Your task to perform on an android device: What's on the menu at Olive Garden? Image 0: 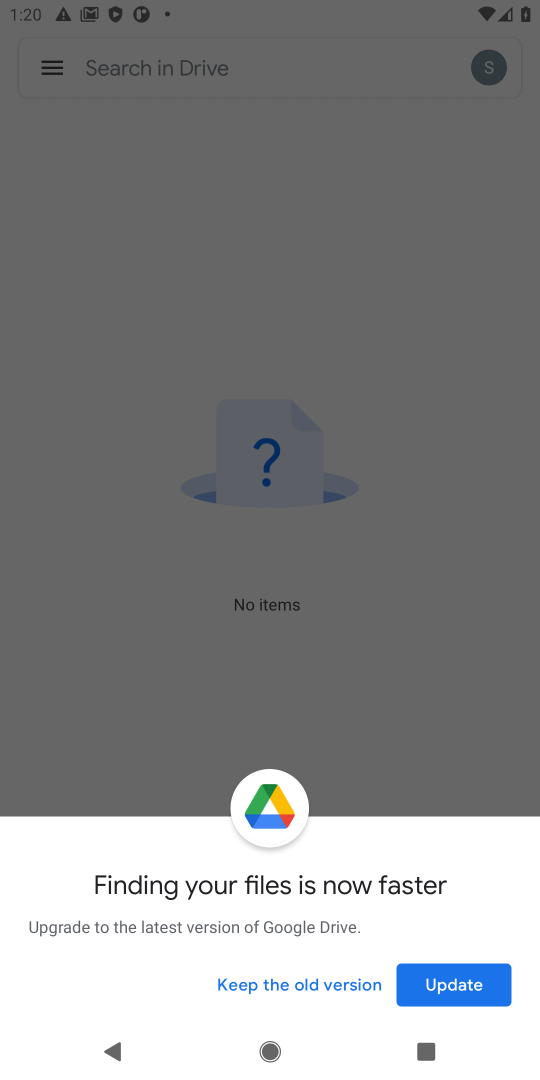
Step 0: press home button
Your task to perform on an android device: What's on the menu at Olive Garden? Image 1: 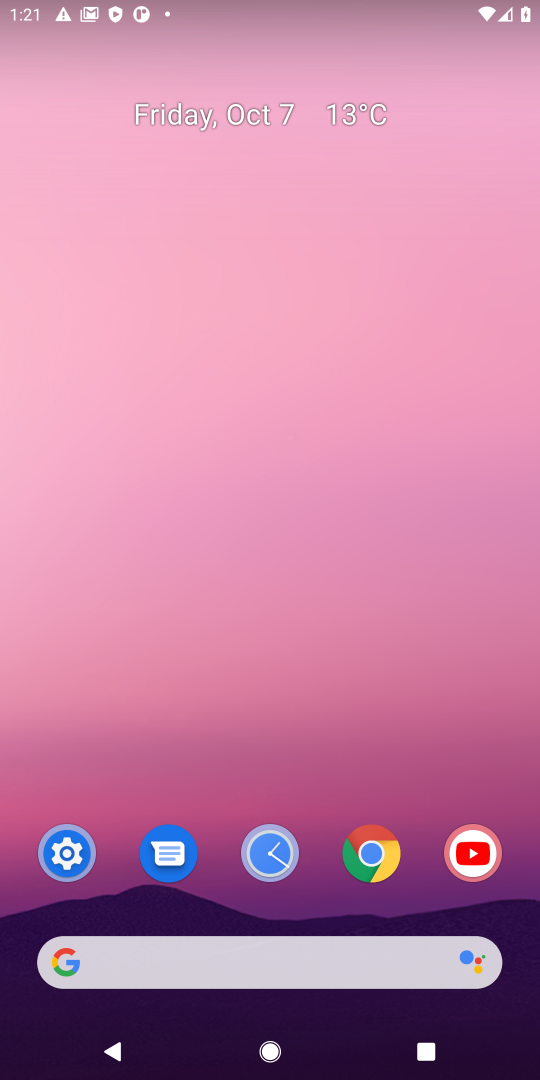
Step 1: click (217, 983)
Your task to perform on an android device: What's on the menu at Olive Garden? Image 2: 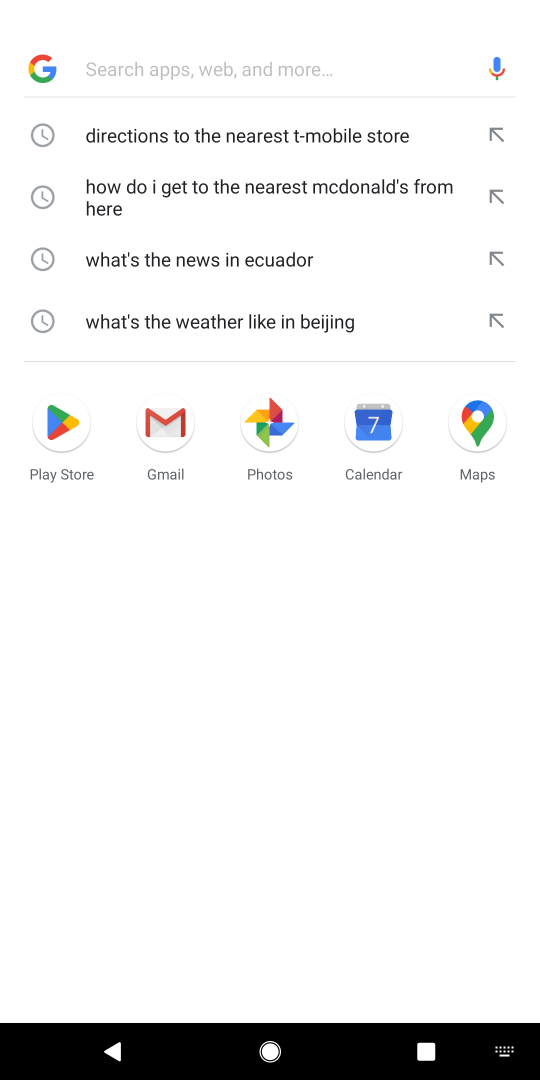
Step 2: type "What's on the menu at Olive Garden?"
Your task to perform on an android device: What's on the menu at Olive Garden? Image 3: 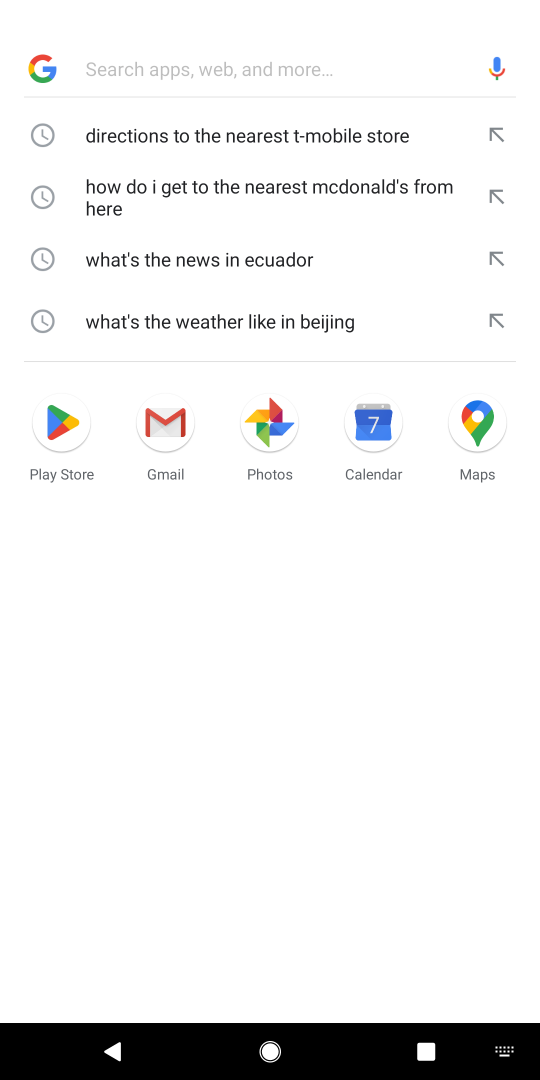
Step 3: click (123, 127)
Your task to perform on an android device: What's on the menu at Olive Garden? Image 4: 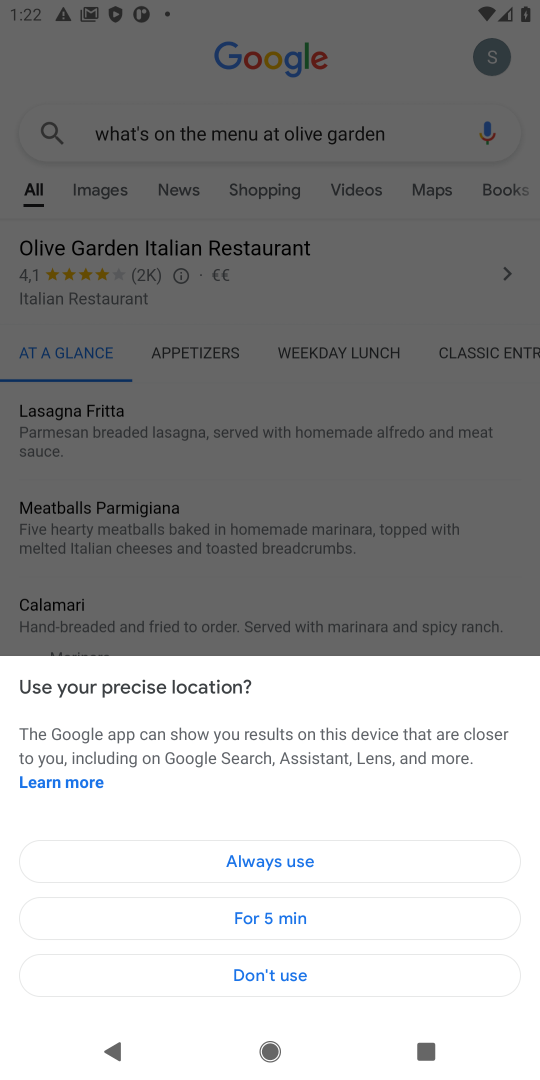
Step 4: task complete